Your task to perform on an android device: turn on bluetooth scan Image 0: 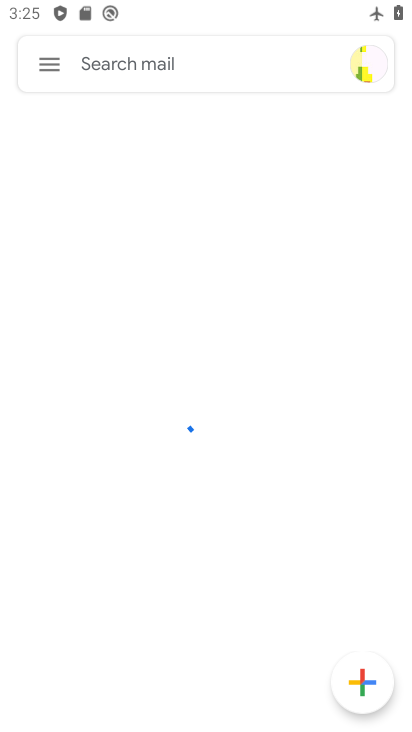
Step 0: press home button
Your task to perform on an android device: turn on bluetooth scan Image 1: 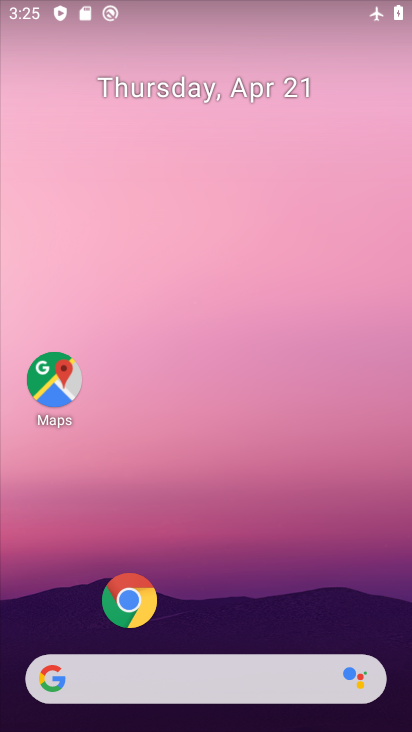
Step 1: drag from (285, 613) to (308, 235)
Your task to perform on an android device: turn on bluetooth scan Image 2: 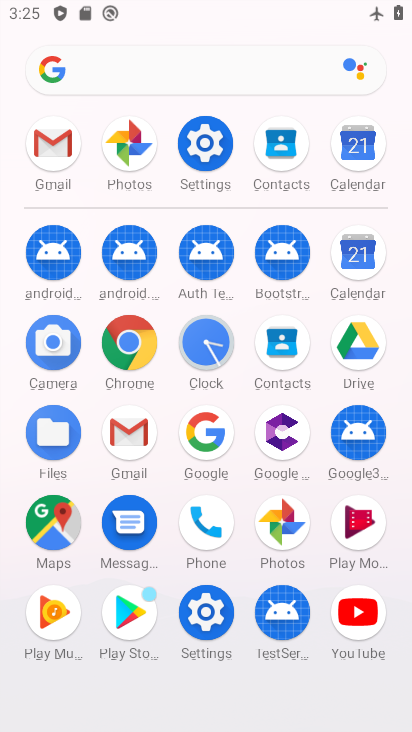
Step 2: click (225, 165)
Your task to perform on an android device: turn on bluetooth scan Image 3: 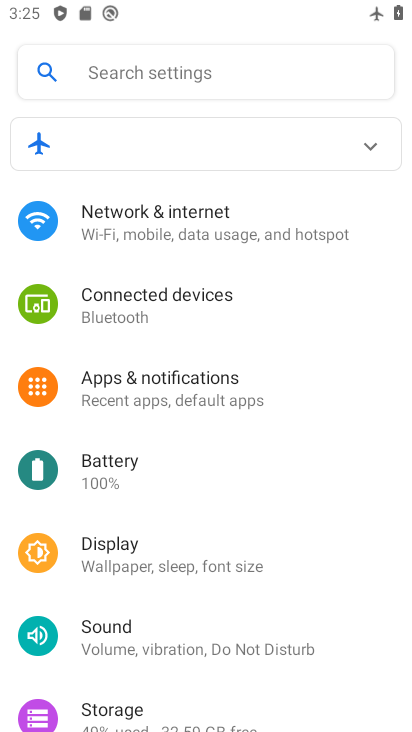
Step 3: drag from (220, 547) to (257, 349)
Your task to perform on an android device: turn on bluetooth scan Image 4: 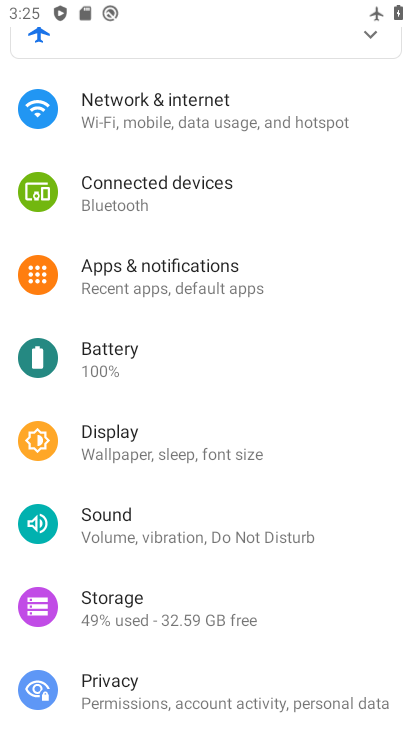
Step 4: drag from (179, 633) to (237, 359)
Your task to perform on an android device: turn on bluetooth scan Image 5: 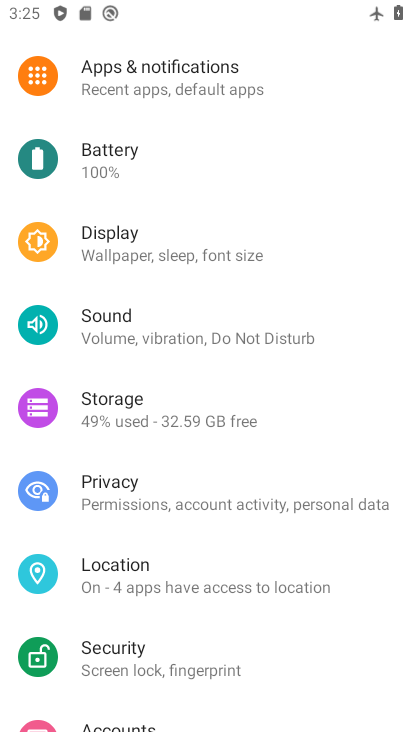
Step 5: click (182, 574)
Your task to perform on an android device: turn on bluetooth scan Image 6: 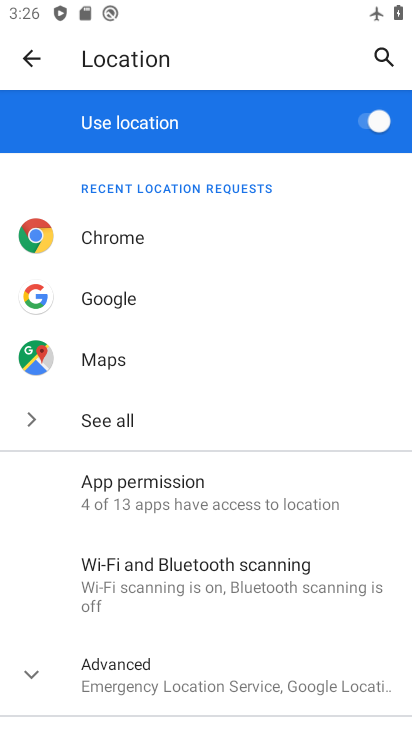
Step 6: click (246, 573)
Your task to perform on an android device: turn on bluetooth scan Image 7: 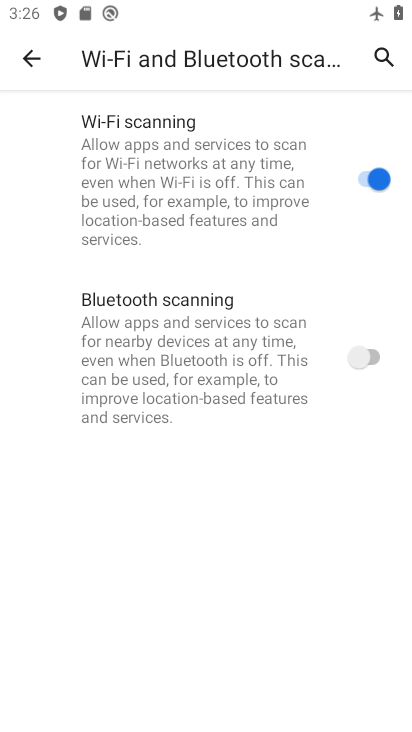
Step 7: click (376, 368)
Your task to perform on an android device: turn on bluetooth scan Image 8: 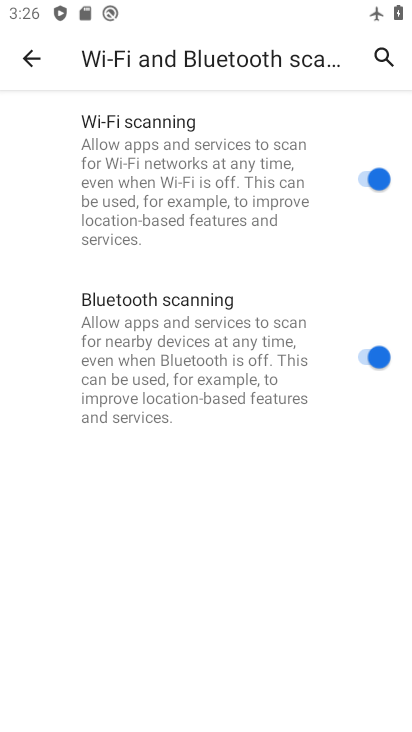
Step 8: task complete